Your task to perform on an android device: change notification settings in the gmail app Image 0: 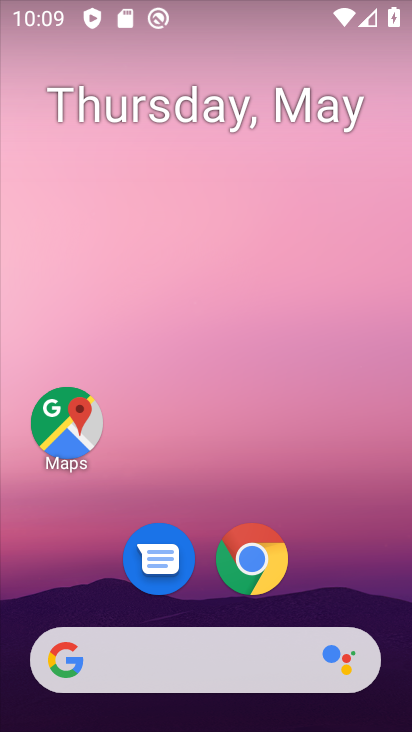
Step 0: drag from (337, 557) to (268, 62)
Your task to perform on an android device: change notification settings in the gmail app Image 1: 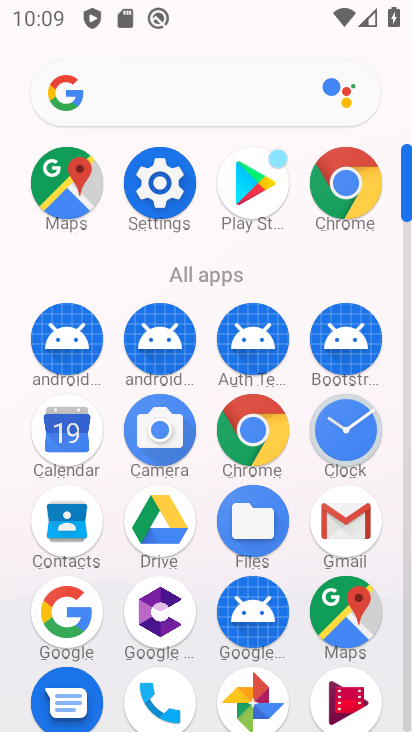
Step 1: click (330, 523)
Your task to perform on an android device: change notification settings in the gmail app Image 2: 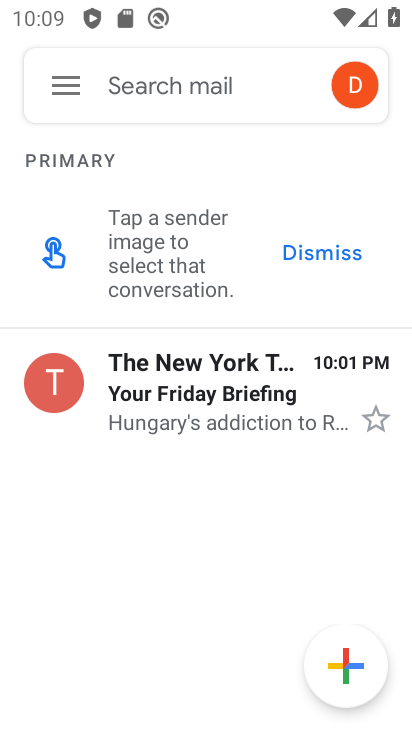
Step 2: click (46, 92)
Your task to perform on an android device: change notification settings in the gmail app Image 3: 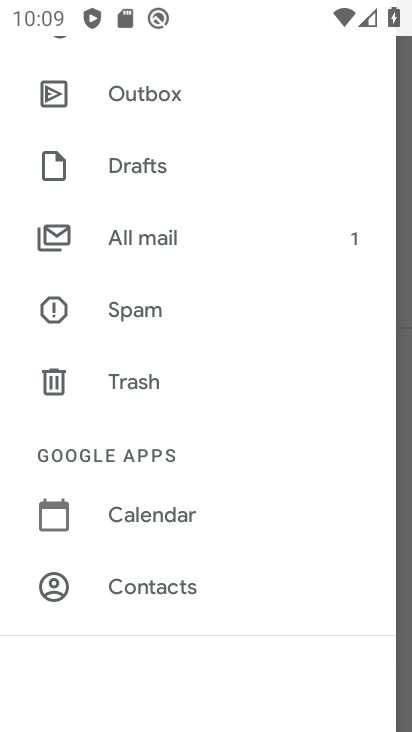
Step 3: drag from (189, 591) to (245, 144)
Your task to perform on an android device: change notification settings in the gmail app Image 4: 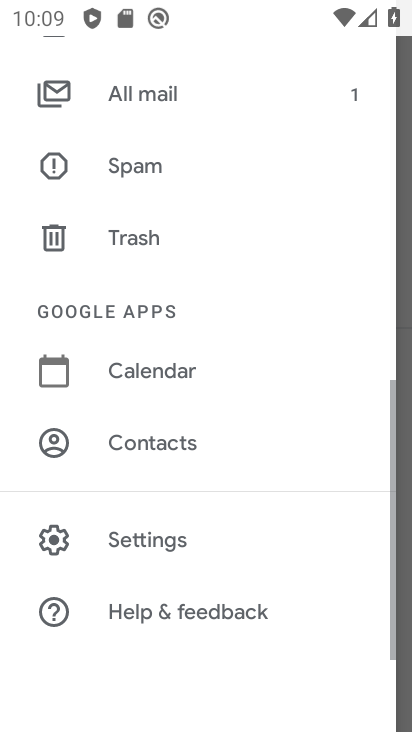
Step 4: drag from (282, 143) to (286, 489)
Your task to perform on an android device: change notification settings in the gmail app Image 5: 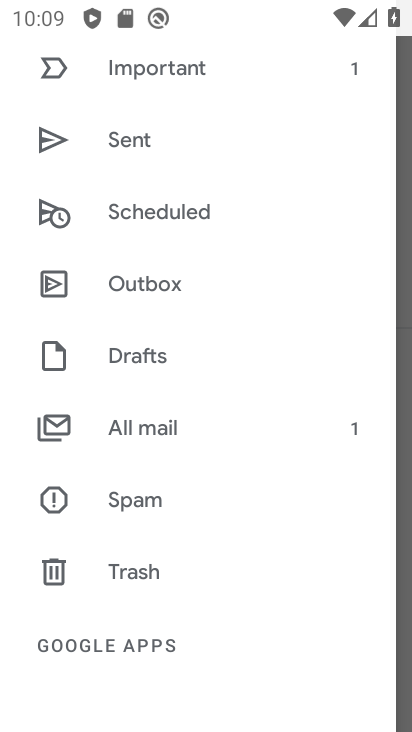
Step 5: drag from (147, 581) to (167, 165)
Your task to perform on an android device: change notification settings in the gmail app Image 6: 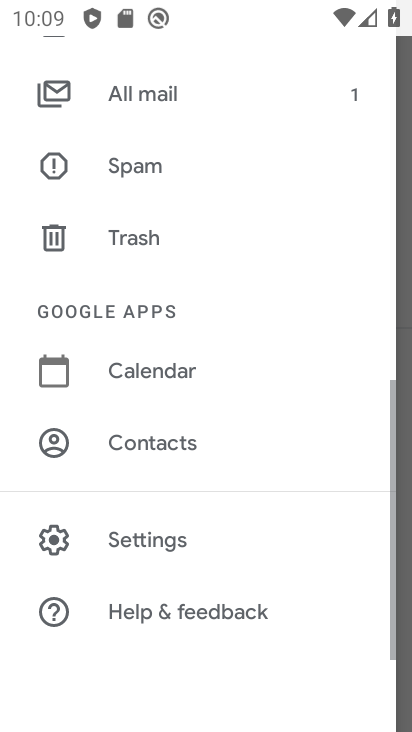
Step 6: click (152, 536)
Your task to perform on an android device: change notification settings in the gmail app Image 7: 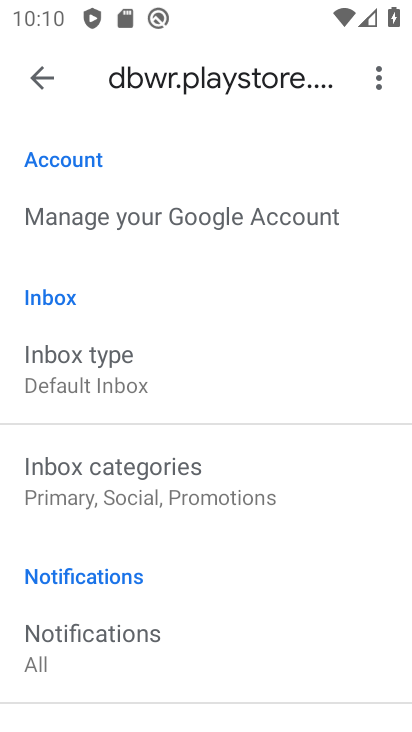
Step 7: click (90, 644)
Your task to perform on an android device: change notification settings in the gmail app Image 8: 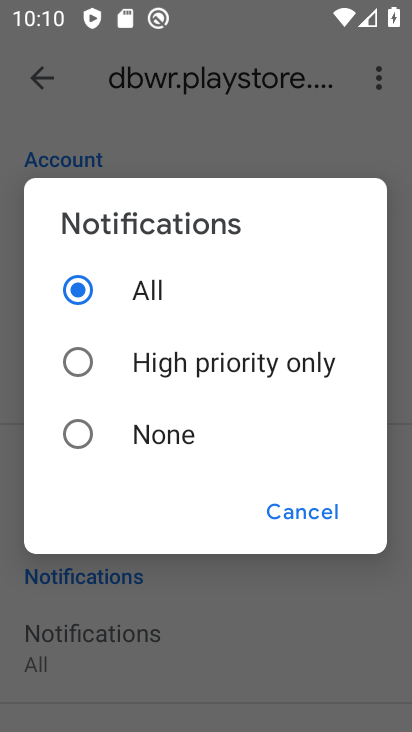
Step 8: click (60, 371)
Your task to perform on an android device: change notification settings in the gmail app Image 9: 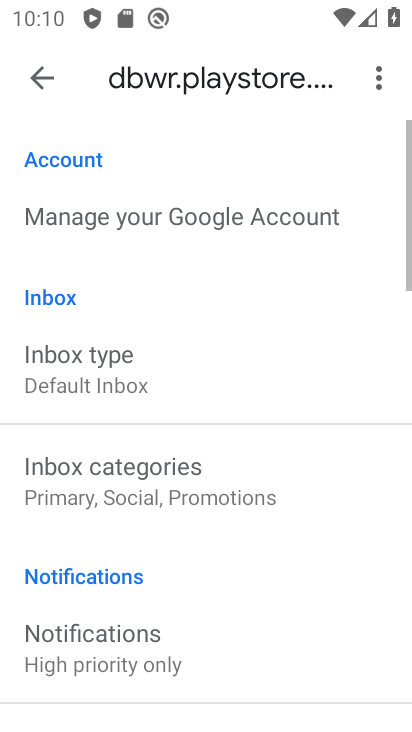
Step 9: task complete